Your task to perform on an android device: Search for pizza restaurants on Maps Image 0: 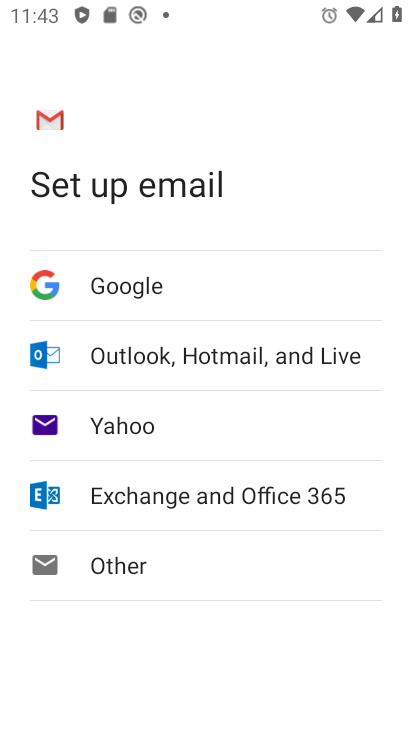
Step 0: press home button
Your task to perform on an android device: Search for pizza restaurants on Maps Image 1: 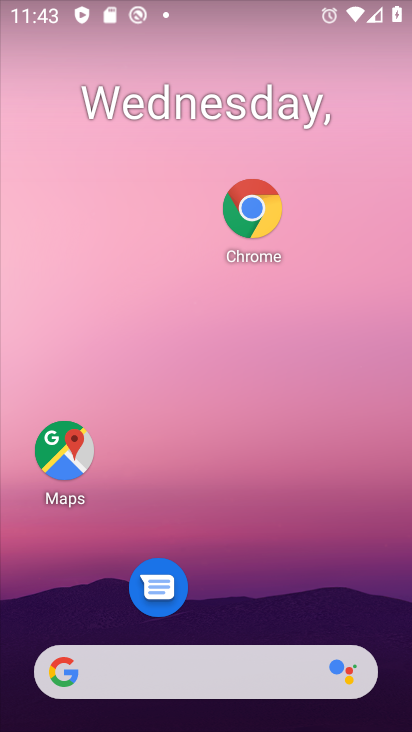
Step 1: drag from (227, 586) to (112, 2)
Your task to perform on an android device: Search for pizza restaurants on Maps Image 2: 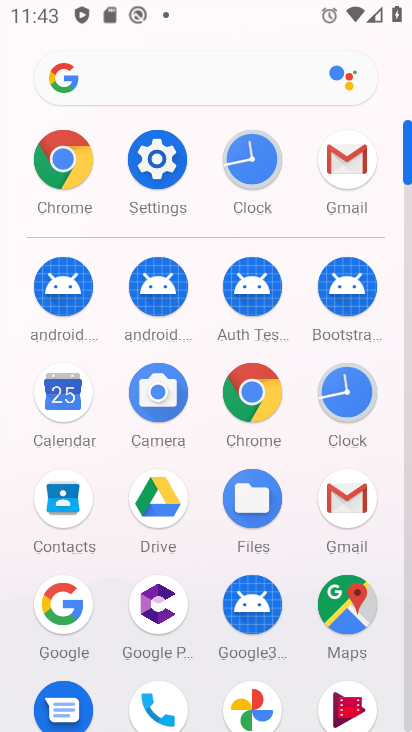
Step 2: click (342, 639)
Your task to perform on an android device: Search for pizza restaurants on Maps Image 3: 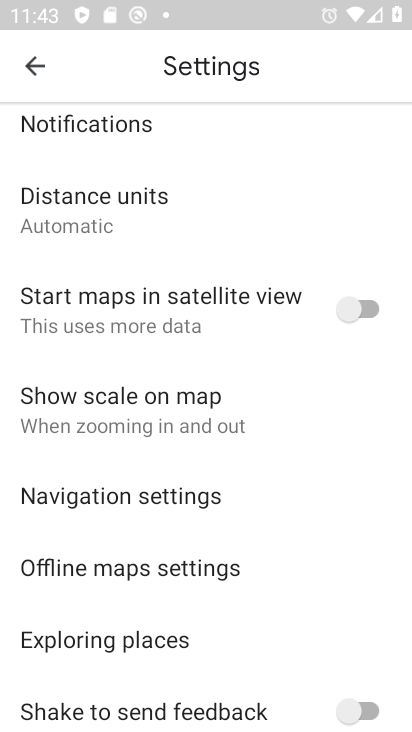
Step 3: click (36, 76)
Your task to perform on an android device: Search for pizza restaurants on Maps Image 4: 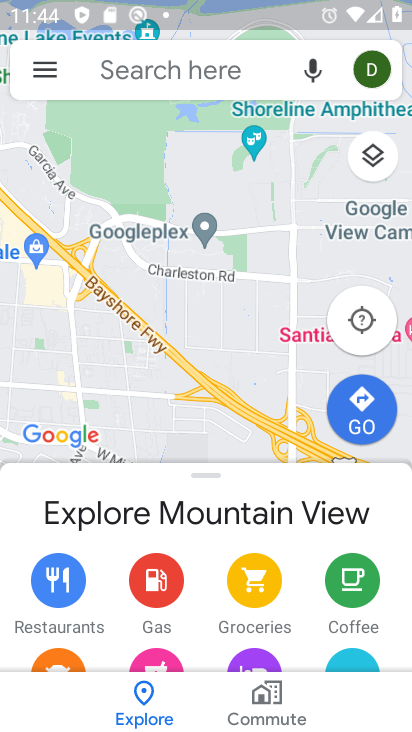
Step 4: task complete